Your task to perform on an android device: What's the weather today? Image 0: 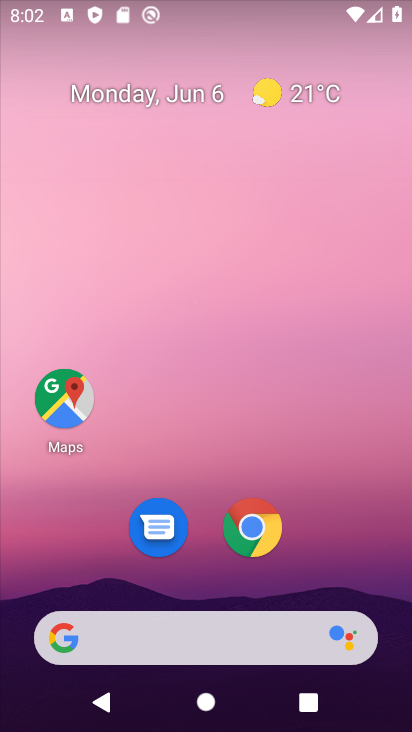
Step 0: drag from (235, 558) to (263, 130)
Your task to perform on an android device: What's the weather today? Image 1: 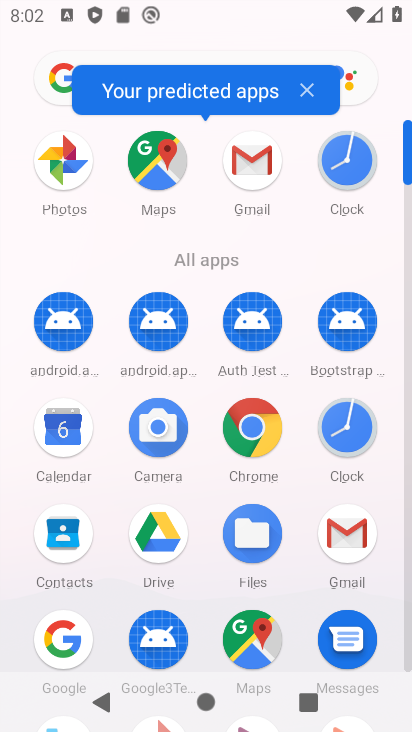
Step 1: click (71, 639)
Your task to perform on an android device: What's the weather today? Image 2: 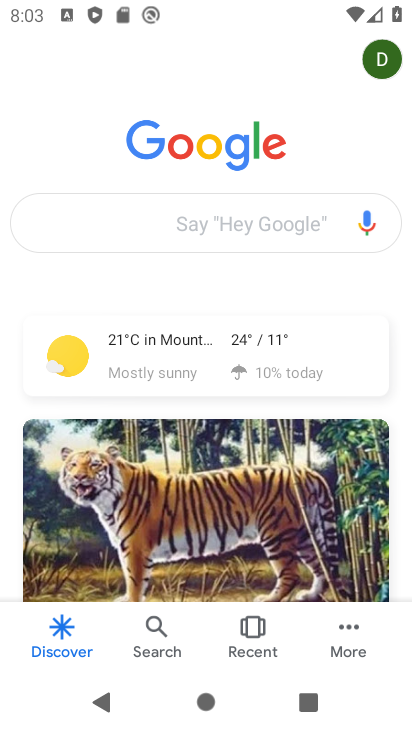
Step 2: click (185, 233)
Your task to perform on an android device: What's the weather today? Image 3: 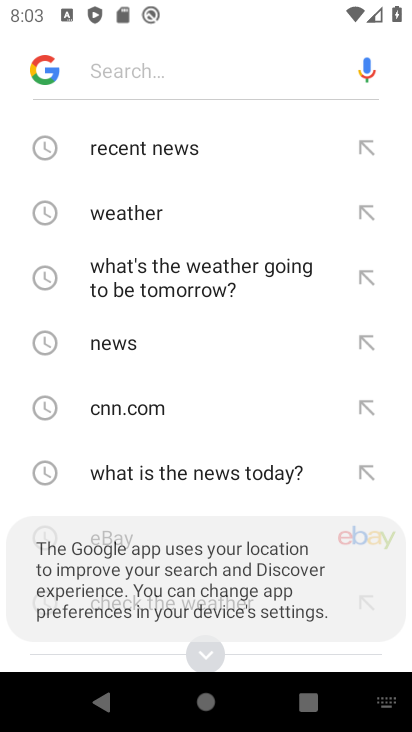
Step 3: click (154, 213)
Your task to perform on an android device: What's the weather today? Image 4: 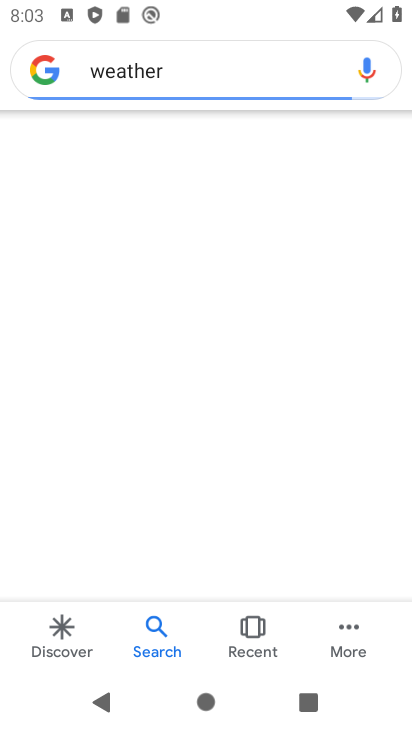
Step 4: task complete